Your task to perform on an android device: find snoozed emails in the gmail app Image 0: 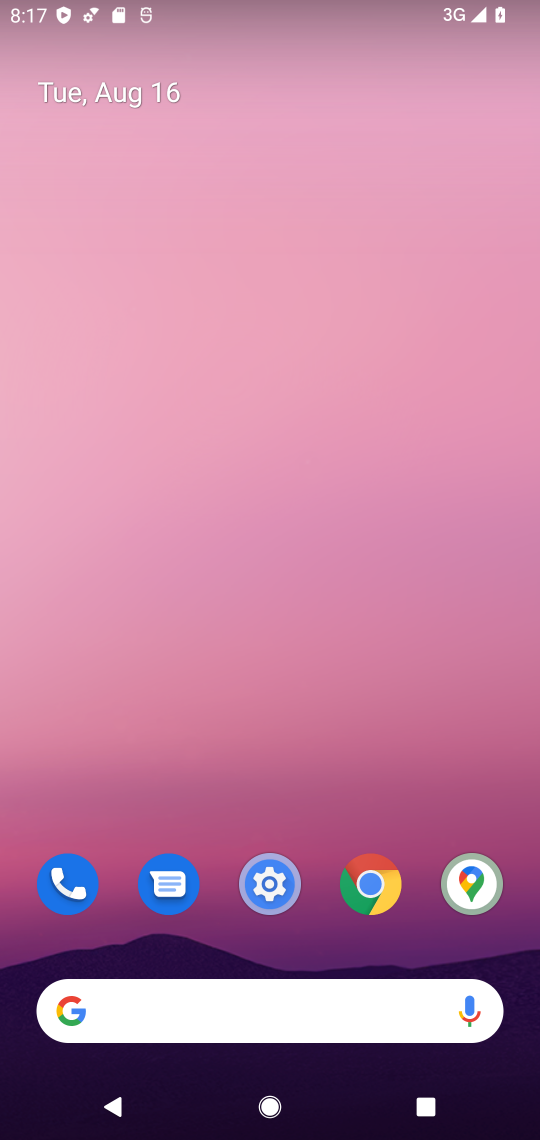
Step 0: click (371, 343)
Your task to perform on an android device: find snoozed emails in the gmail app Image 1: 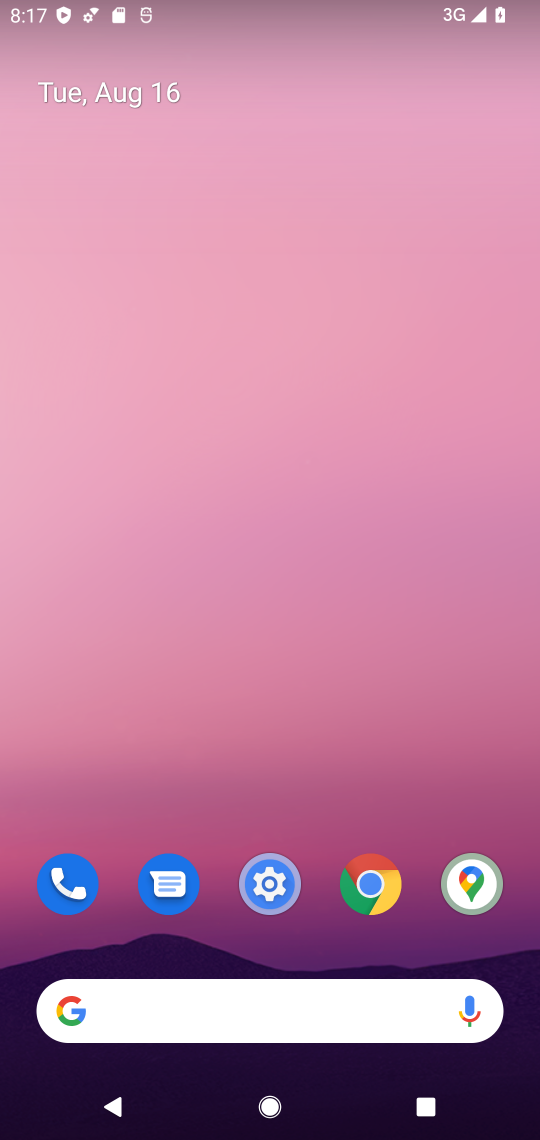
Step 1: drag from (409, 949) to (387, 207)
Your task to perform on an android device: find snoozed emails in the gmail app Image 2: 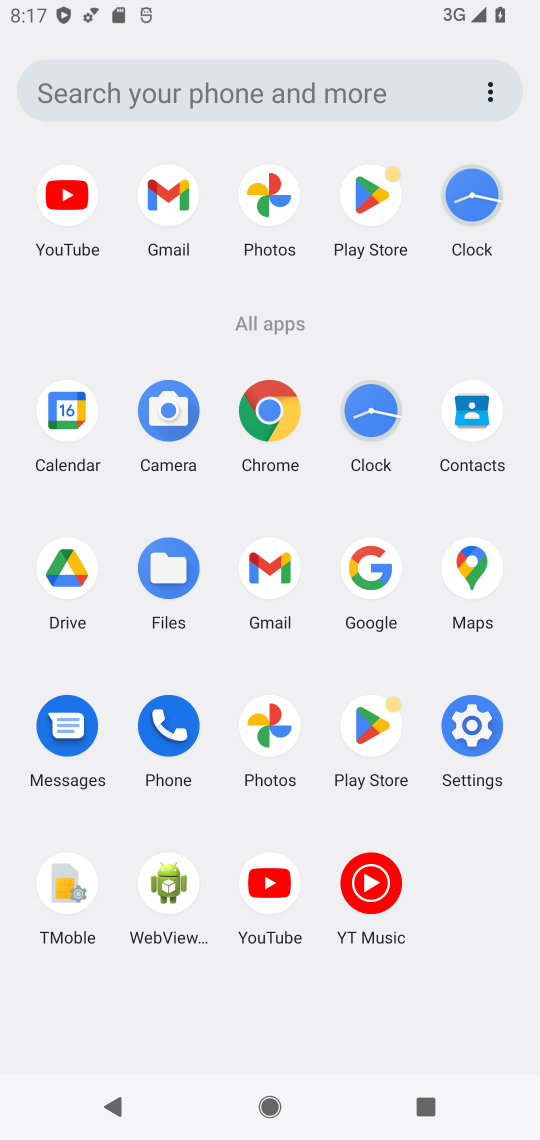
Step 2: click (267, 567)
Your task to perform on an android device: find snoozed emails in the gmail app Image 3: 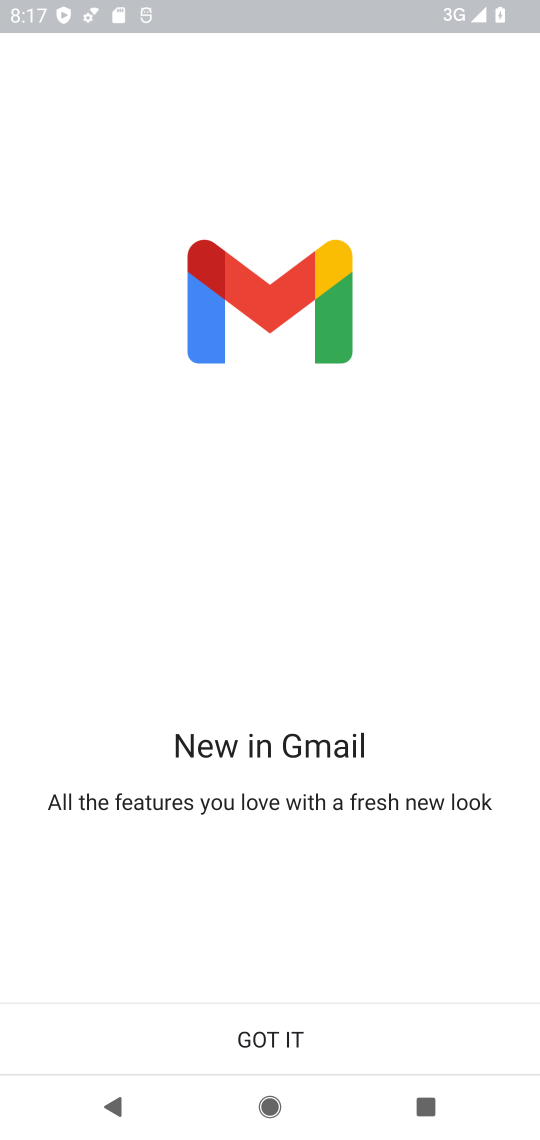
Step 3: click (280, 1033)
Your task to perform on an android device: find snoozed emails in the gmail app Image 4: 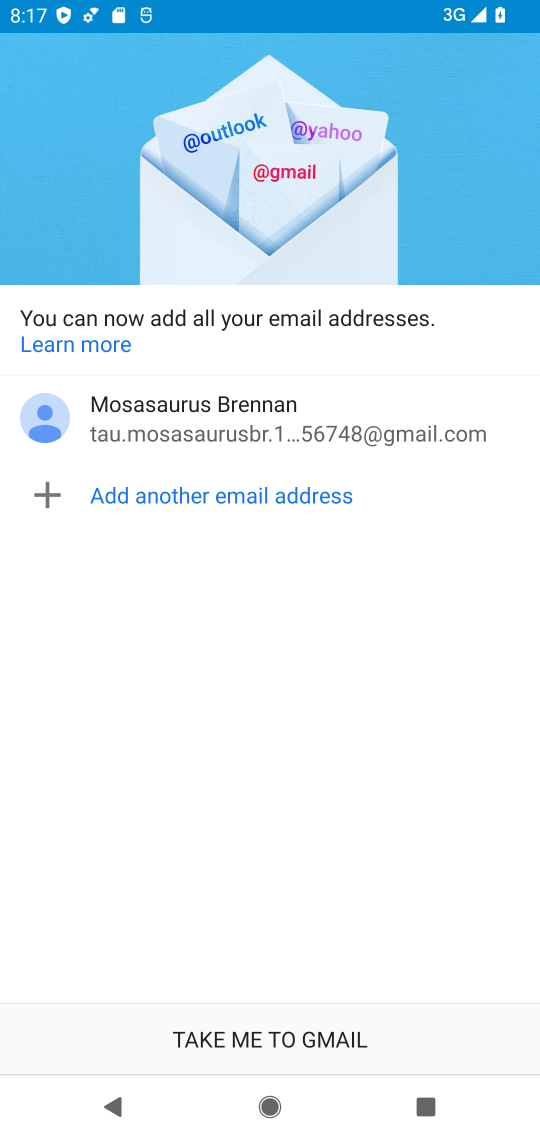
Step 4: click (263, 1017)
Your task to perform on an android device: find snoozed emails in the gmail app Image 5: 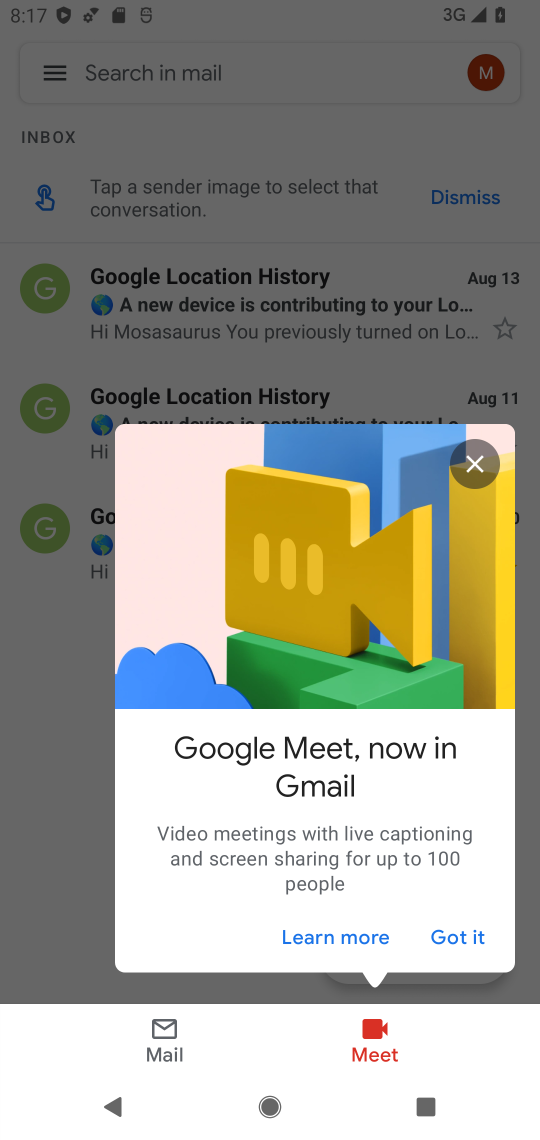
Step 5: click (476, 462)
Your task to perform on an android device: find snoozed emails in the gmail app Image 6: 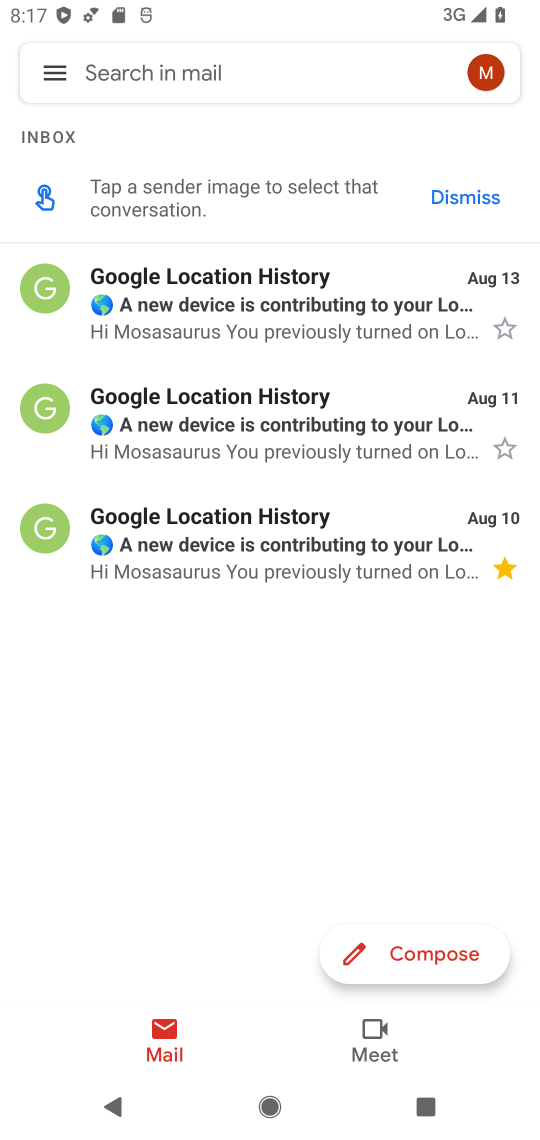
Step 6: click (64, 71)
Your task to perform on an android device: find snoozed emails in the gmail app Image 7: 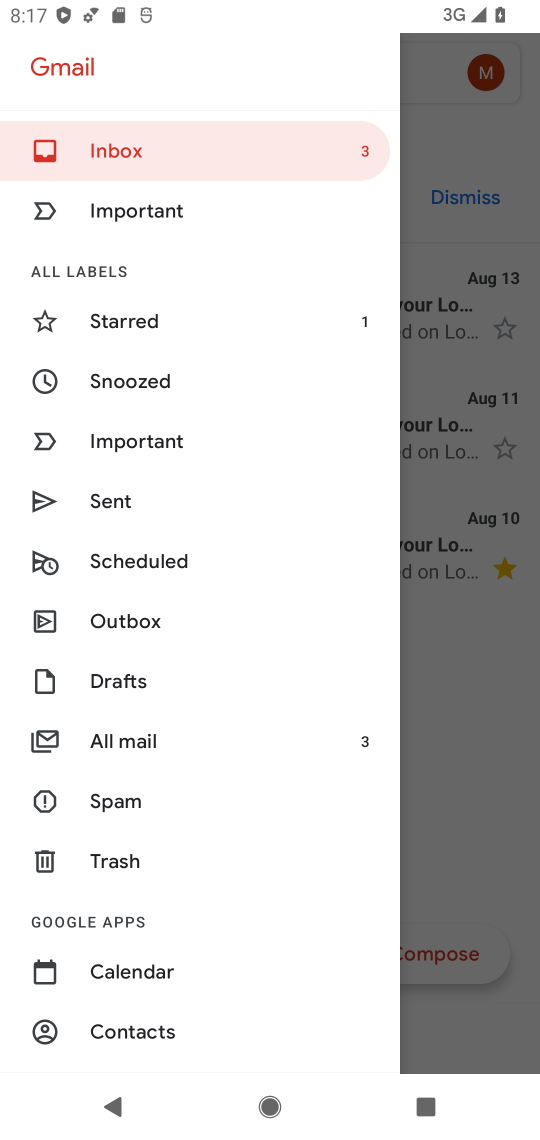
Step 7: click (130, 389)
Your task to perform on an android device: find snoozed emails in the gmail app Image 8: 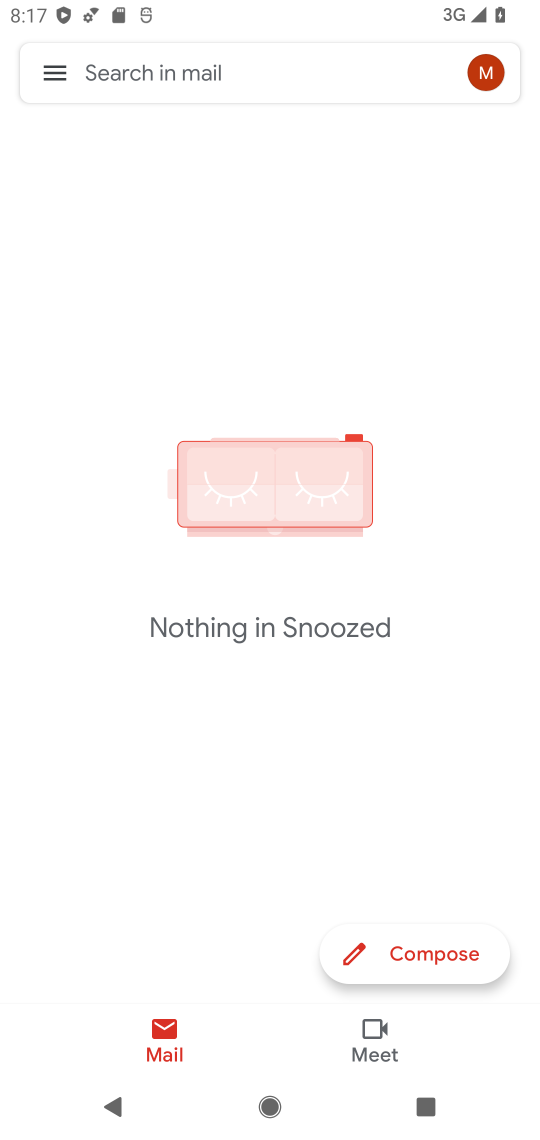
Step 8: task complete